Your task to perform on an android device: What's the weather going to be this weekend? Image 0: 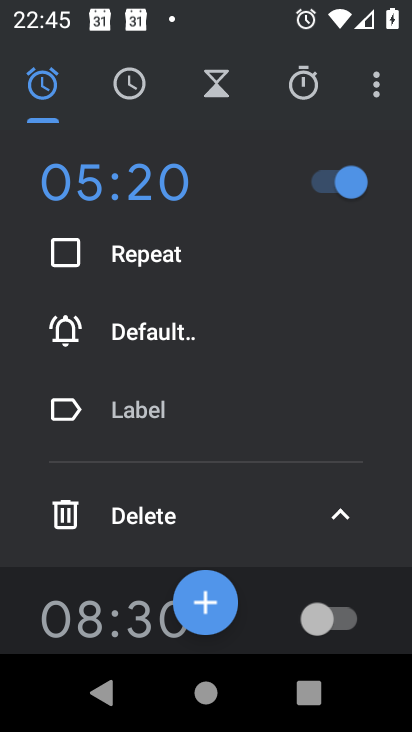
Step 0: press home button
Your task to perform on an android device: What's the weather going to be this weekend? Image 1: 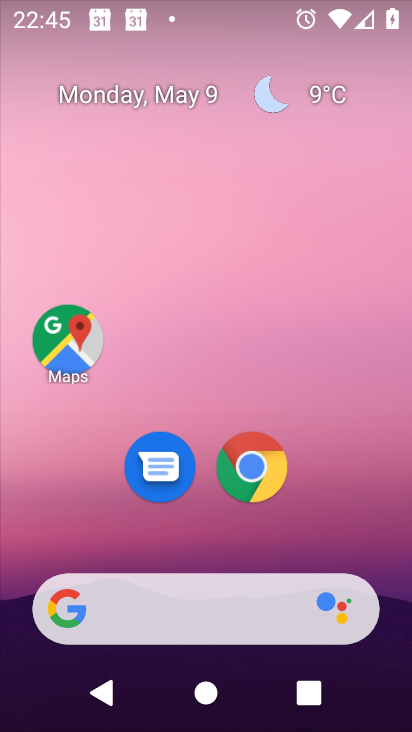
Step 1: click (335, 86)
Your task to perform on an android device: What's the weather going to be this weekend? Image 2: 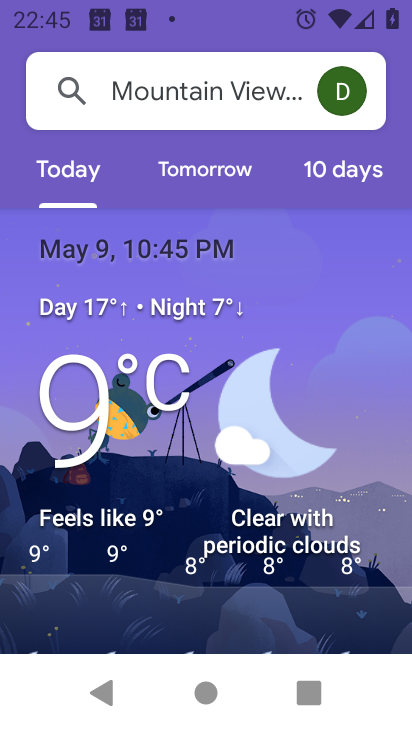
Step 2: click (323, 171)
Your task to perform on an android device: What's the weather going to be this weekend? Image 3: 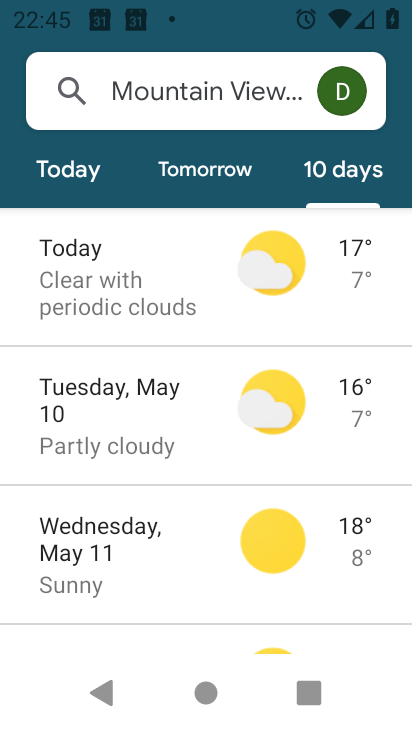
Step 3: task complete